Your task to perform on an android device: check storage Image 0: 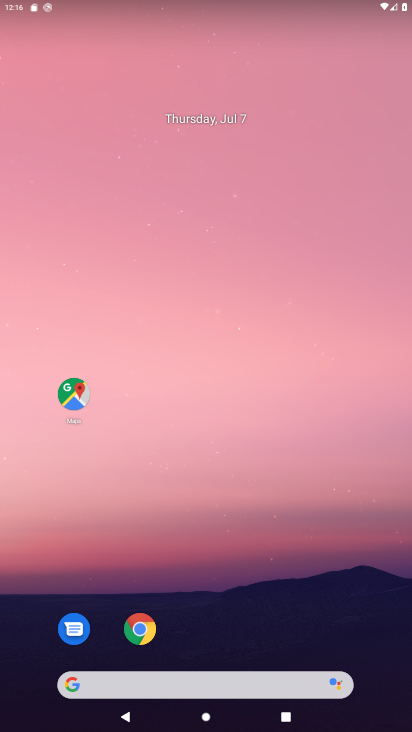
Step 0: drag from (334, 600) to (258, 141)
Your task to perform on an android device: check storage Image 1: 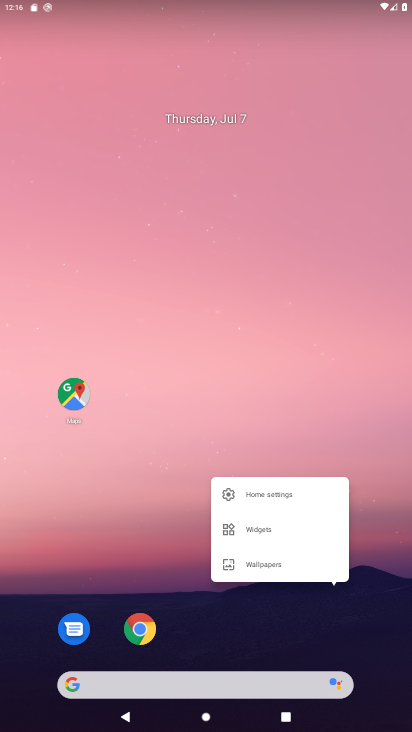
Step 1: click (166, 507)
Your task to perform on an android device: check storage Image 2: 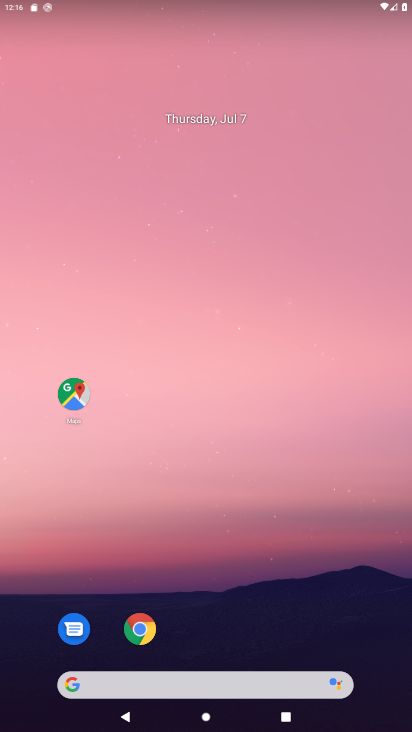
Step 2: drag from (308, 583) to (236, 188)
Your task to perform on an android device: check storage Image 3: 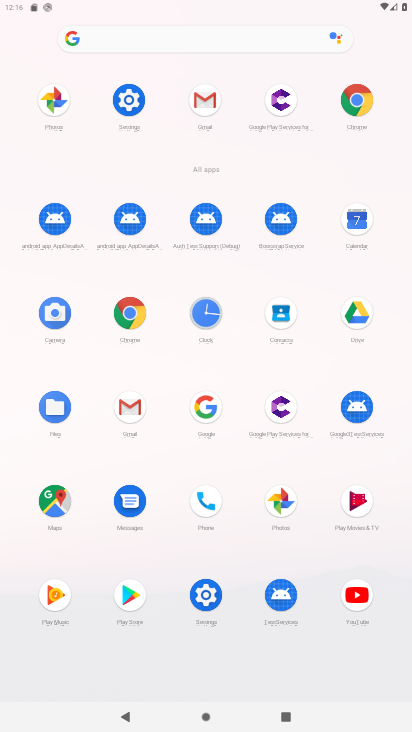
Step 3: click (120, 107)
Your task to perform on an android device: check storage Image 4: 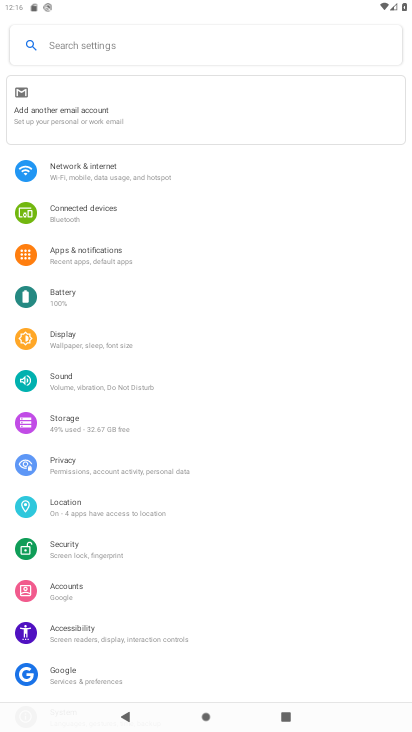
Step 4: click (145, 429)
Your task to perform on an android device: check storage Image 5: 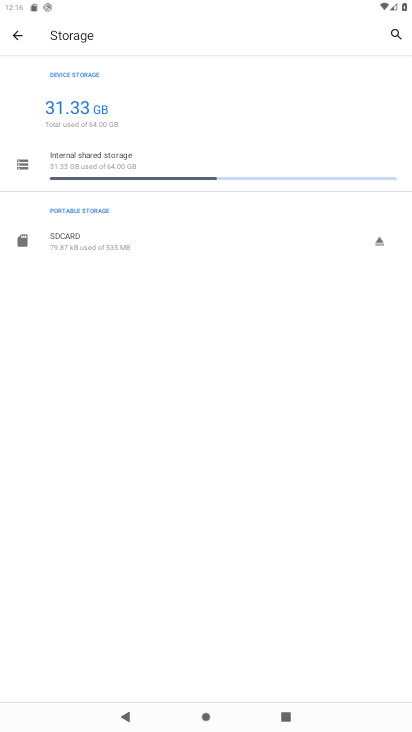
Step 5: task complete